Your task to perform on an android device: Go to Yahoo.com Image 0: 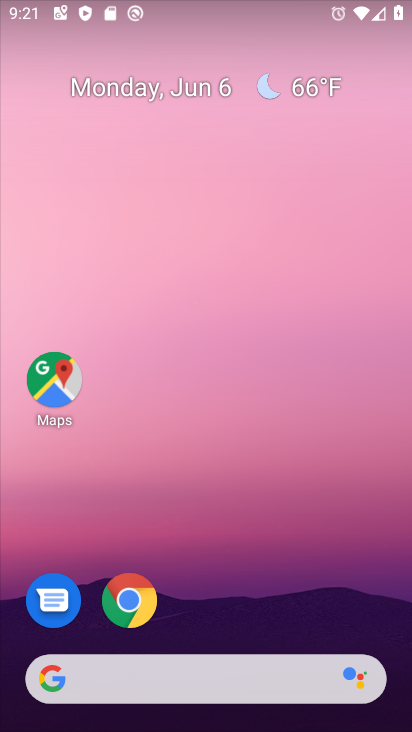
Step 0: press home button
Your task to perform on an android device: Go to Yahoo.com Image 1: 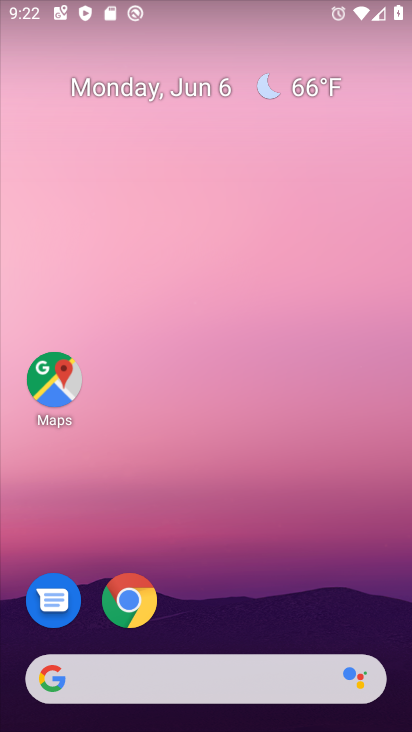
Step 1: click (128, 601)
Your task to perform on an android device: Go to Yahoo.com Image 2: 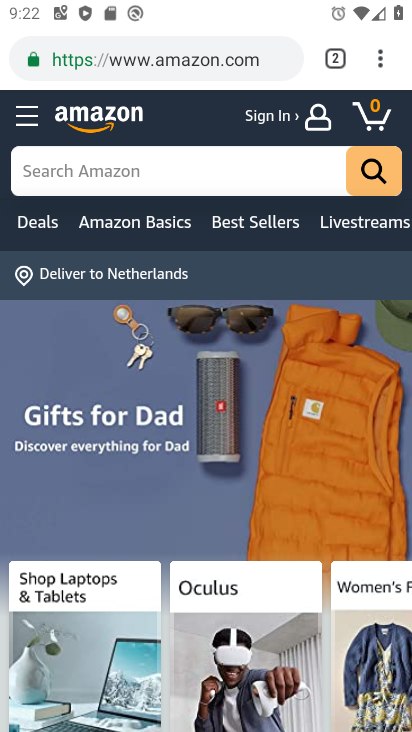
Step 2: click (330, 59)
Your task to perform on an android device: Go to Yahoo.com Image 3: 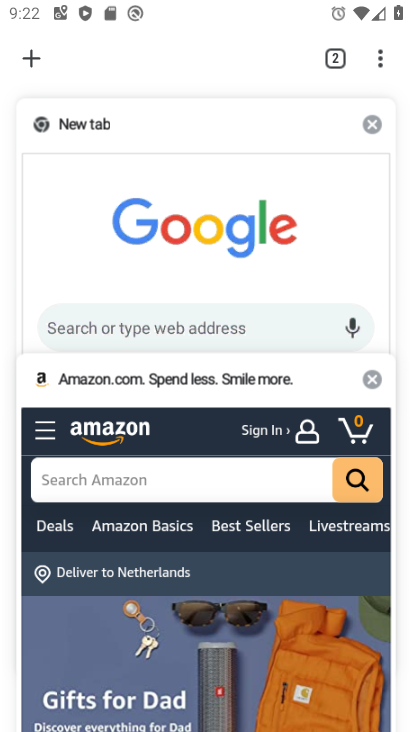
Step 3: click (368, 381)
Your task to perform on an android device: Go to Yahoo.com Image 4: 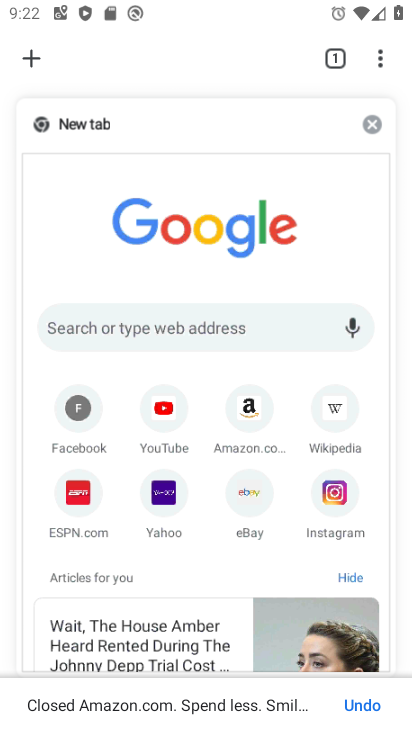
Step 4: click (308, 290)
Your task to perform on an android device: Go to Yahoo.com Image 5: 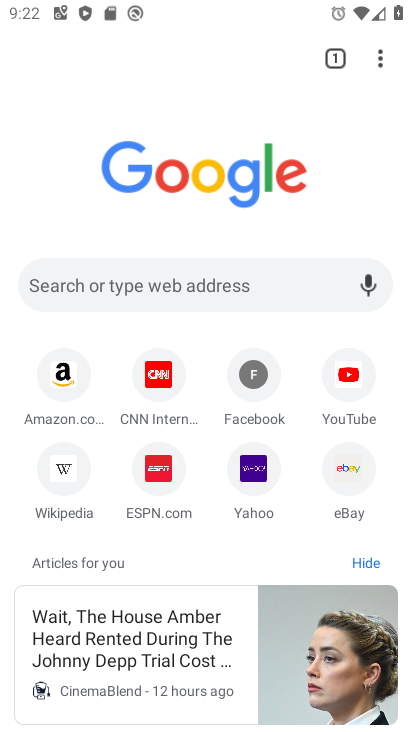
Step 5: click (269, 466)
Your task to perform on an android device: Go to Yahoo.com Image 6: 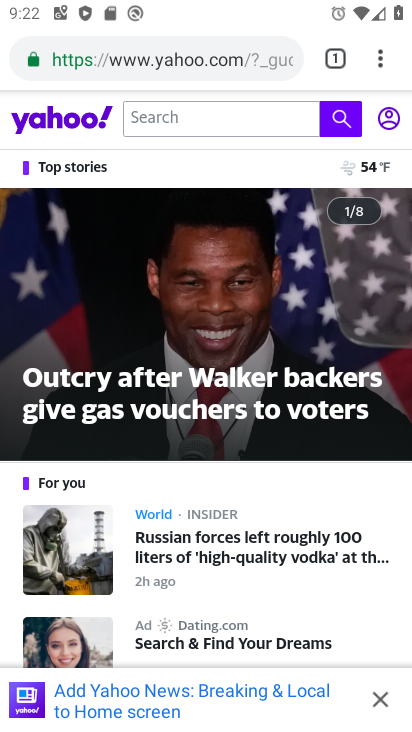
Step 6: task complete